Your task to perform on an android device: set an alarm Image 0: 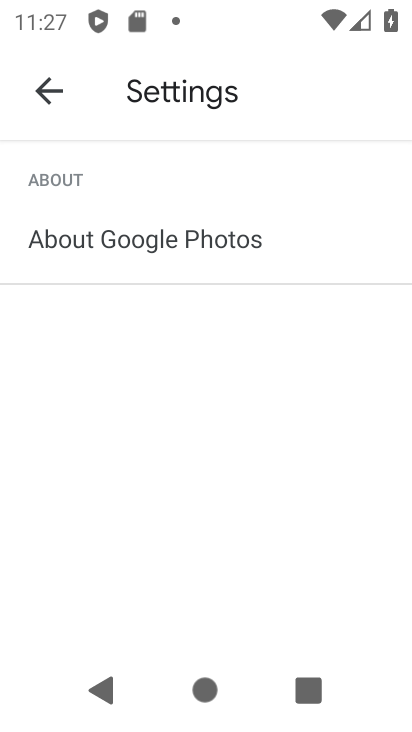
Step 0: press home button
Your task to perform on an android device: set an alarm Image 1: 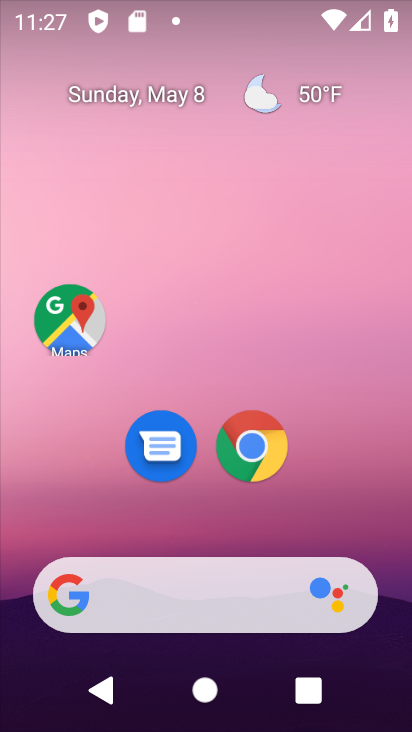
Step 1: drag from (279, 533) to (229, 33)
Your task to perform on an android device: set an alarm Image 2: 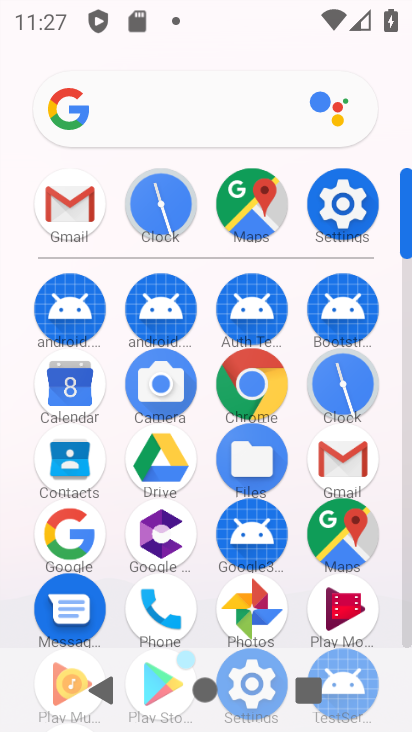
Step 2: click (343, 398)
Your task to perform on an android device: set an alarm Image 3: 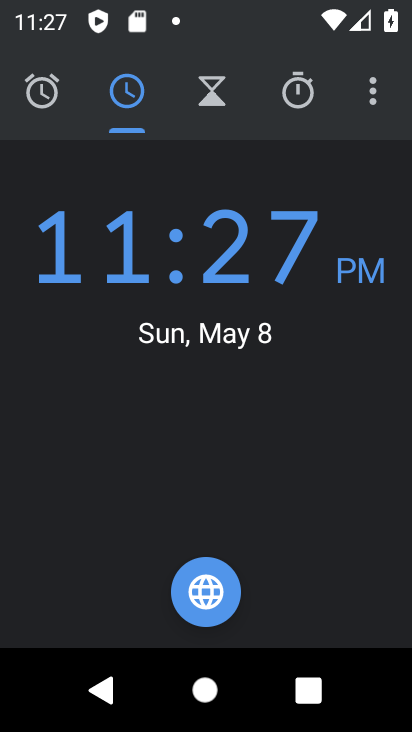
Step 3: click (37, 100)
Your task to perform on an android device: set an alarm Image 4: 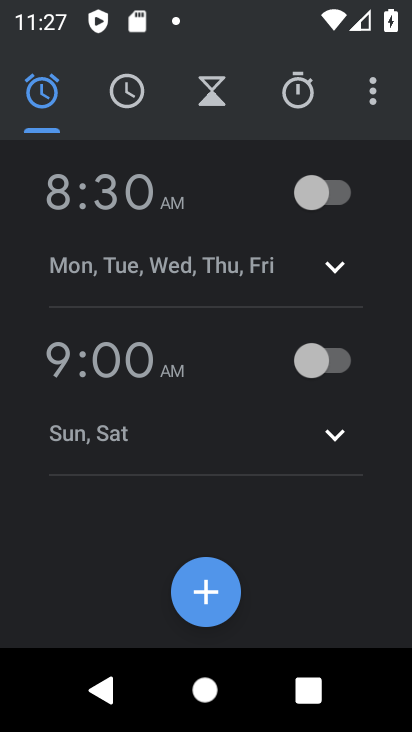
Step 4: click (201, 584)
Your task to perform on an android device: set an alarm Image 5: 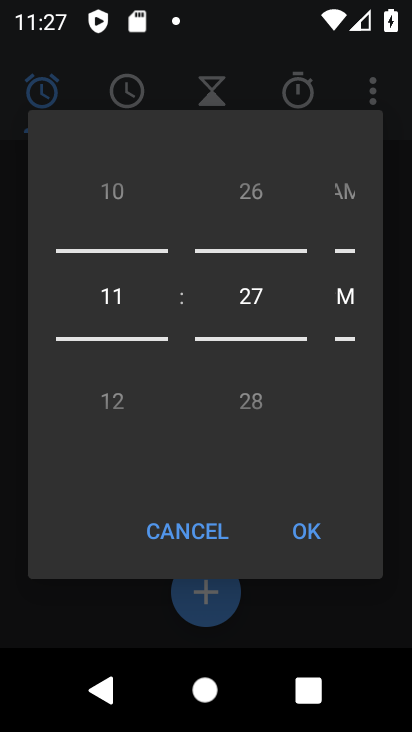
Step 5: click (313, 536)
Your task to perform on an android device: set an alarm Image 6: 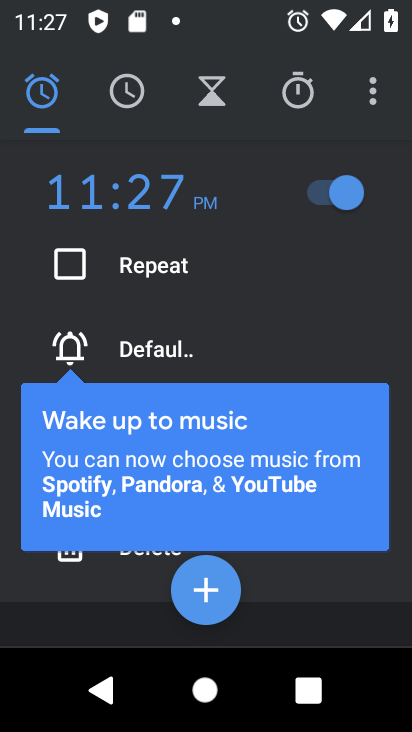
Step 6: click (333, 556)
Your task to perform on an android device: set an alarm Image 7: 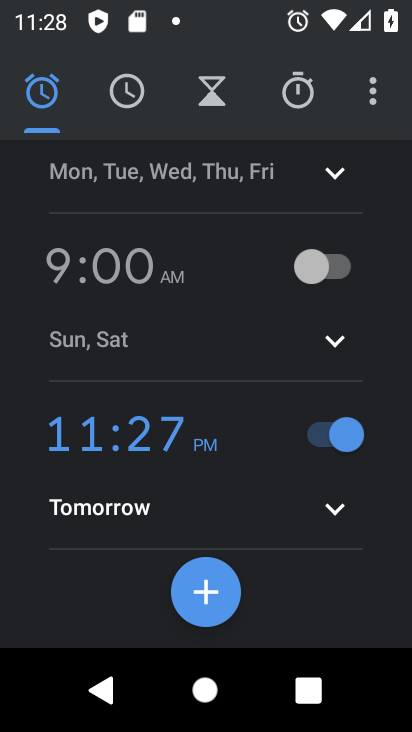
Step 7: task complete